Your task to perform on an android device: turn off location history Image 0: 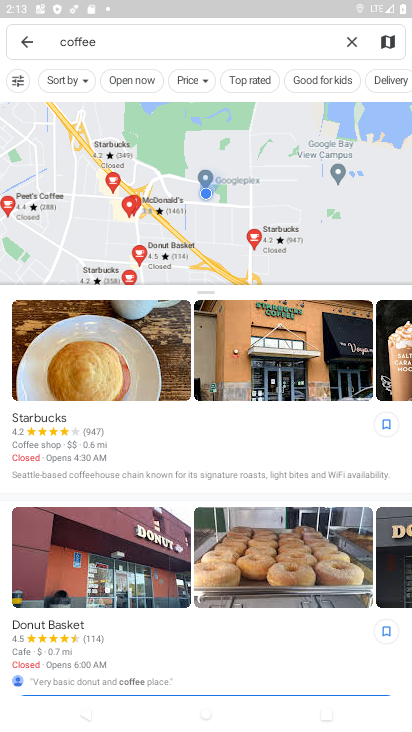
Step 0: press back button
Your task to perform on an android device: turn off location history Image 1: 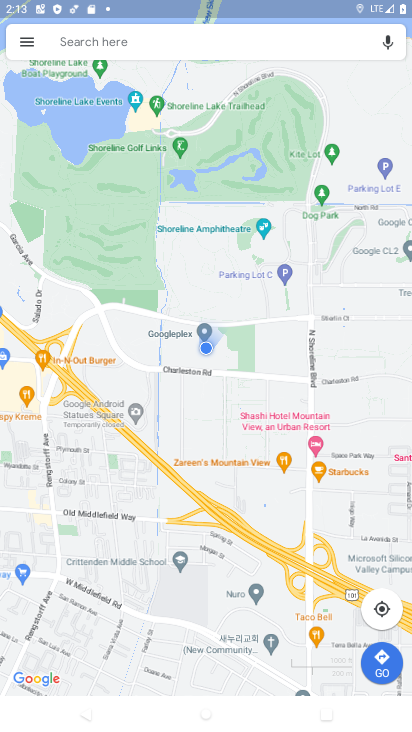
Step 1: press back button
Your task to perform on an android device: turn off location history Image 2: 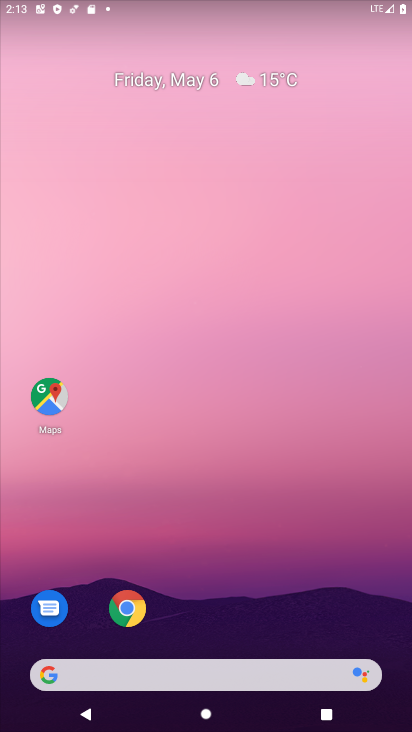
Step 2: drag from (276, 618) to (165, 108)
Your task to perform on an android device: turn off location history Image 3: 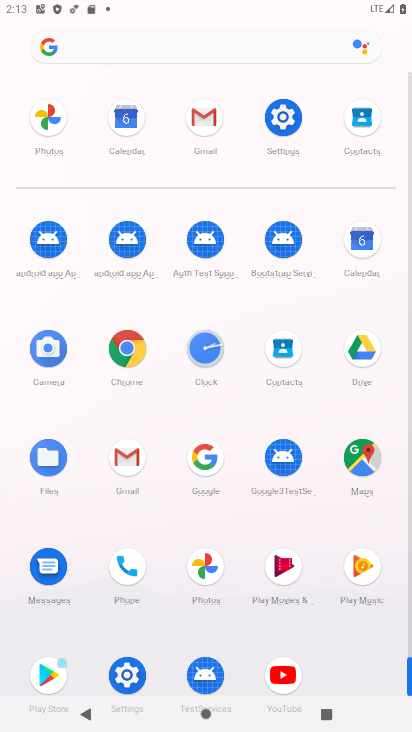
Step 3: click (283, 115)
Your task to perform on an android device: turn off location history Image 4: 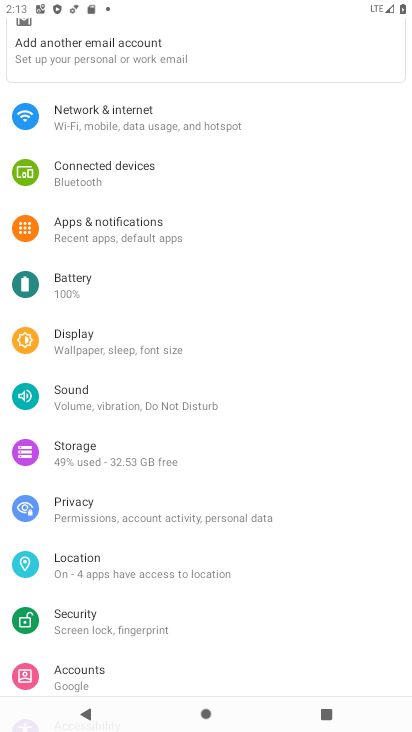
Step 4: click (97, 572)
Your task to perform on an android device: turn off location history Image 5: 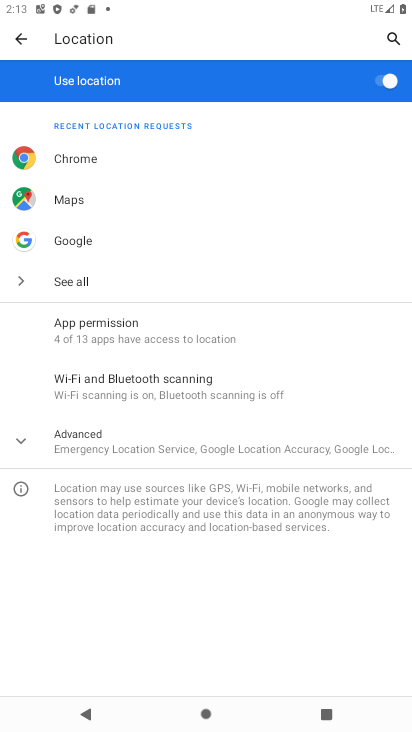
Step 5: click (128, 453)
Your task to perform on an android device: turn off location history Image 6: 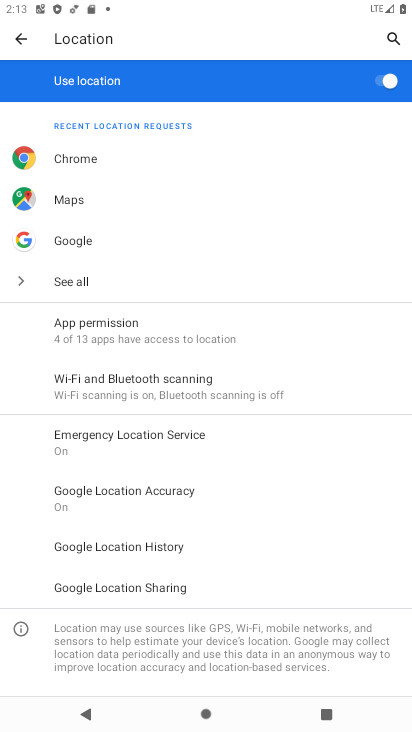
Step 6: click (126, 544)
Your task to perform on an android device: turn off location history Image 7: 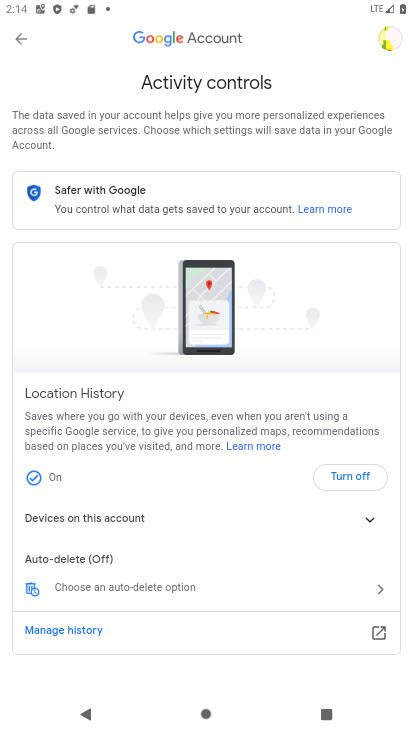
Step 7: click (343, 478)
Your task to perform on an android device: turn off location history Image 8: 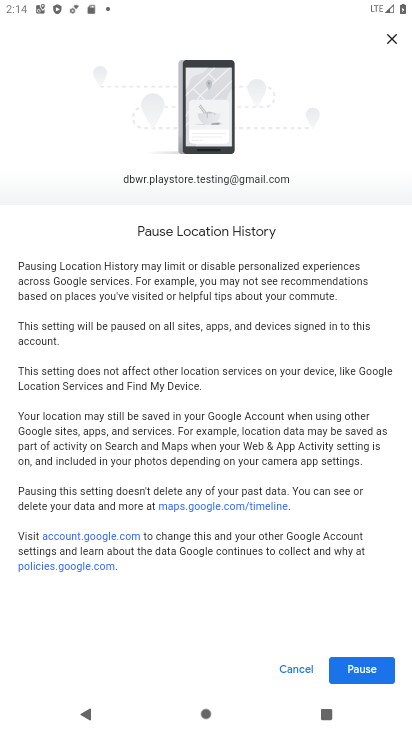
Step 8: drag from (311, 572) to (288, 376)
Your task to perform on an android device: turn off location history Image 9: 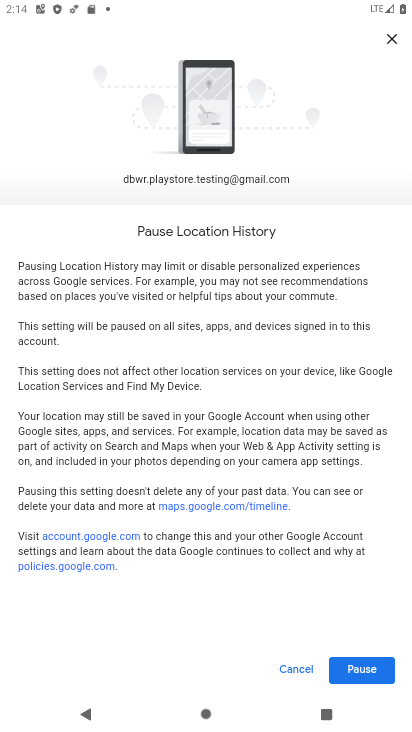
Step 9: click (363, 671)
Your task to perform on an android device: turn off location history Image 10: 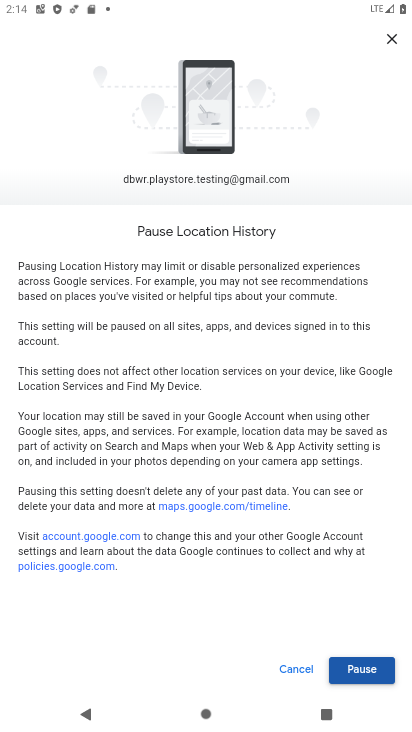
Step 10: click (363, 671)
Your task to perform on an android device: turn off location history Image 11: 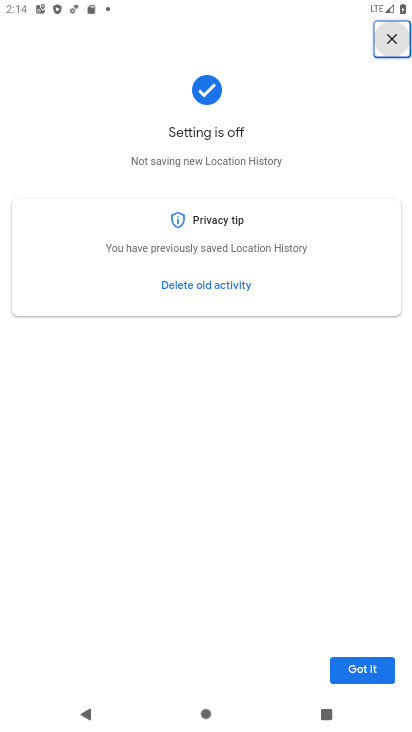
Step 11: task complete